Your task to perform on an android device: check google app version Image 0: 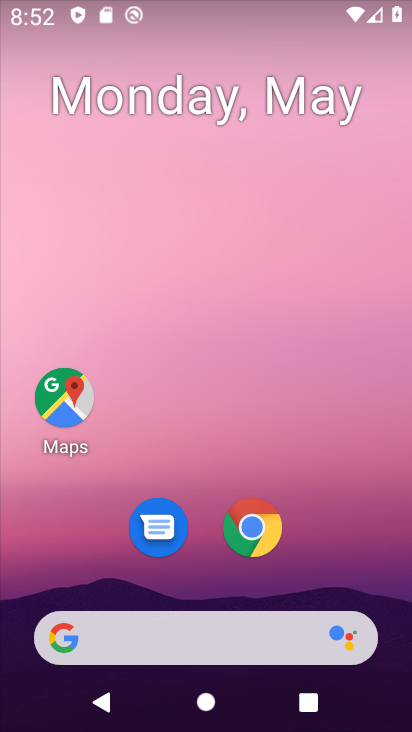
Step 0: drag from (296, 498) to (244, 15)
Your task to perform on an android device: check google app version Image 1: 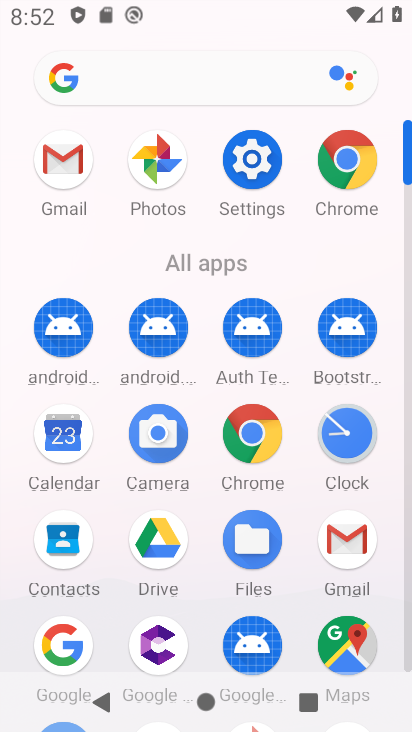
Step 1: drag from (16, 514) to (11, 237)
Your task to perform on an android device: check google app version Image 2: 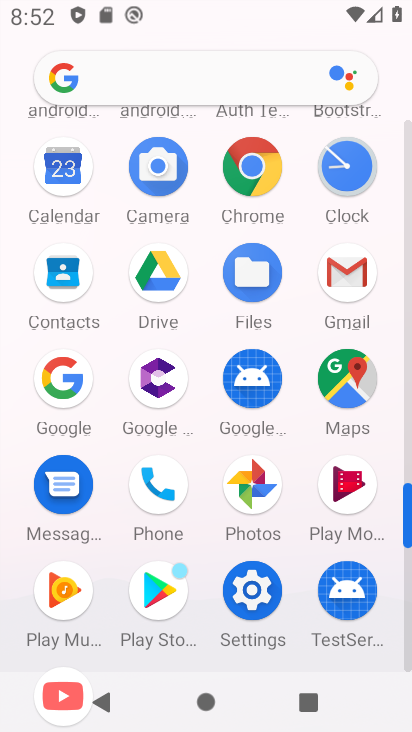
Step 2: click (66, 373)
Your task to perform on an android device: check google app version Image 3: 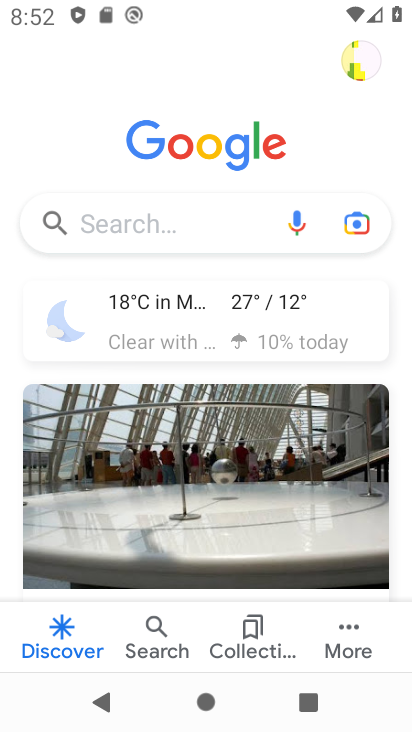
Step 3: drag from (359, 628) to (306, 170)
Your task to perform on an android device: check google app version Image 4: 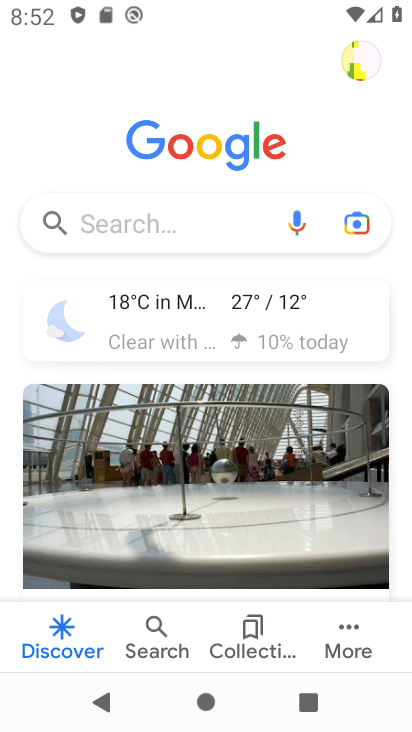
Step 4: click (346, 627)
Your task to perform on an android device: check google app version Image 5: 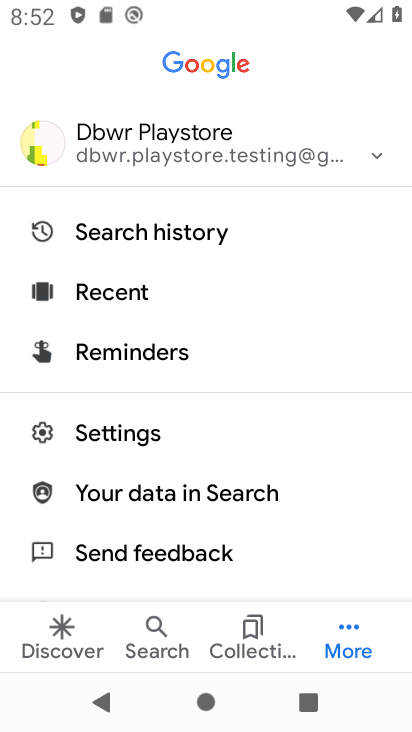
Step 5: click (124, 414)
Your task to perform on an android device: check google app version Image 6: 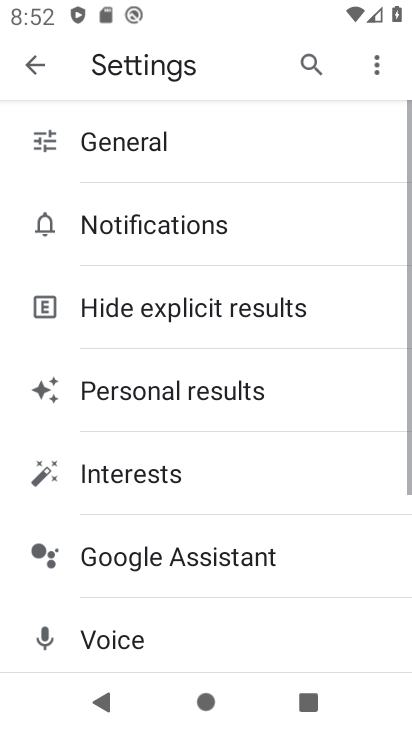
Step 6: drag from (199, 583) to (206, 107)
Your task to perform on an android device: check google app version Image 7: 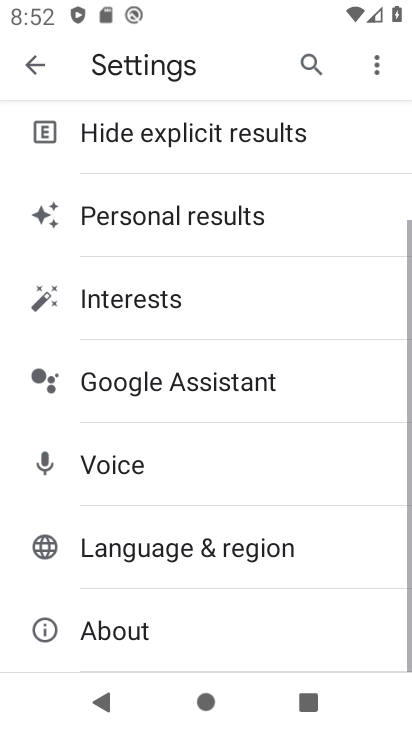
Step 7: click (160, 611)
Your task to perform on an android device: check google app version Image 8: 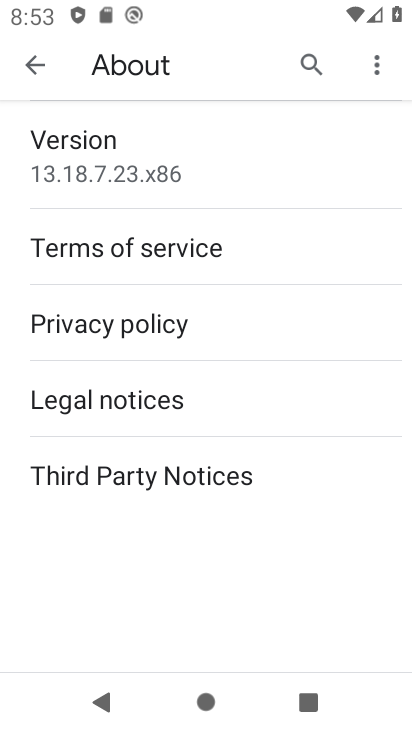
Step 8: task complete